Your task to perform on an android device: set the timer Image 0: 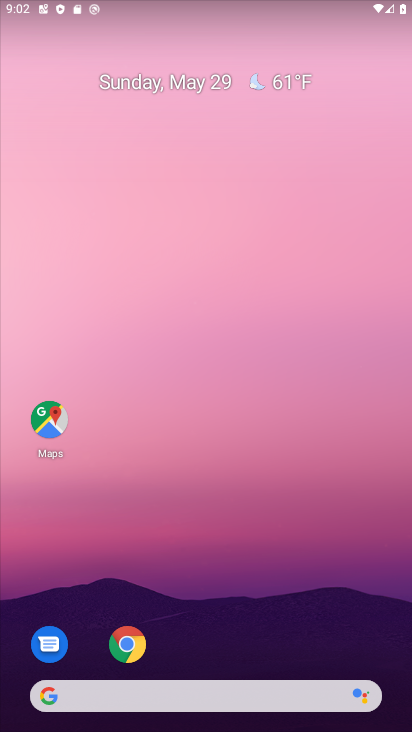
Step 0: drag from (236, 685) to (344, 108)
Your task to perform on an android device: set the timer Image 1: 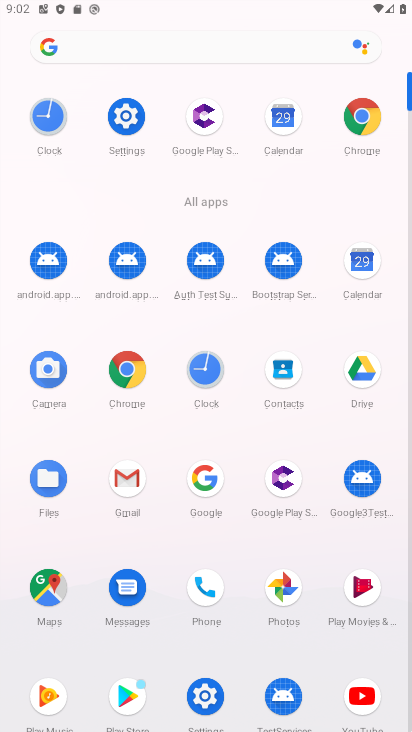
Step 1: click (208, 380)
Your task to perform on an android device: set the timer Image 2: 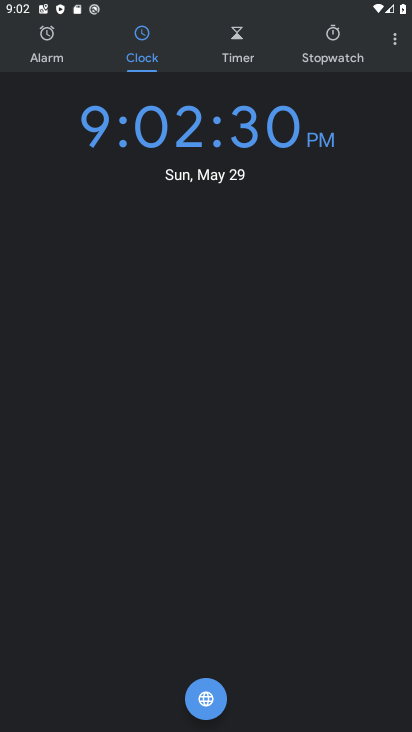
Step 2: click (234, 39)
Your task to perform on an android device: set the timer Image 3: 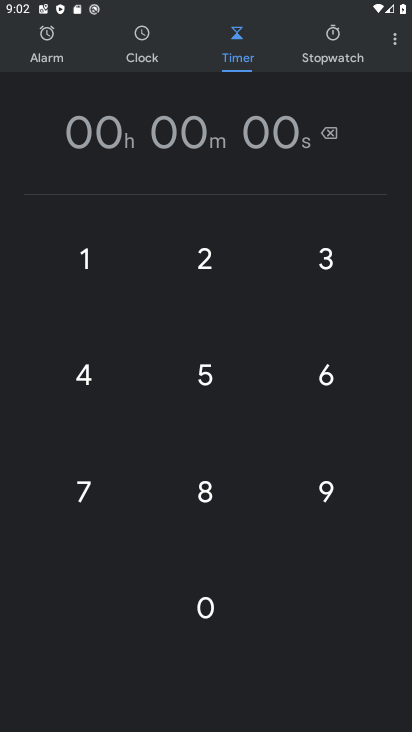
Step 3: click (191, 508)
Your task to perform on an android device: set the timer Image 4: 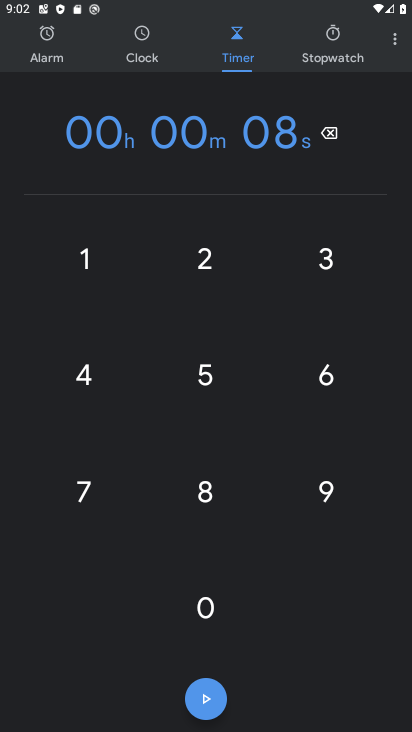
Step 4: click (312, 387)
Your task to perform on an android device: set the timer Image 5: 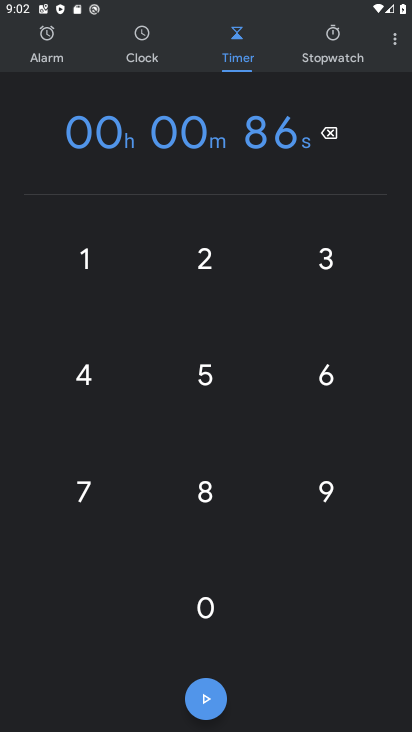
Step 5: click (156, 255)
Your task to perform on an android device: set the timer Image 6: 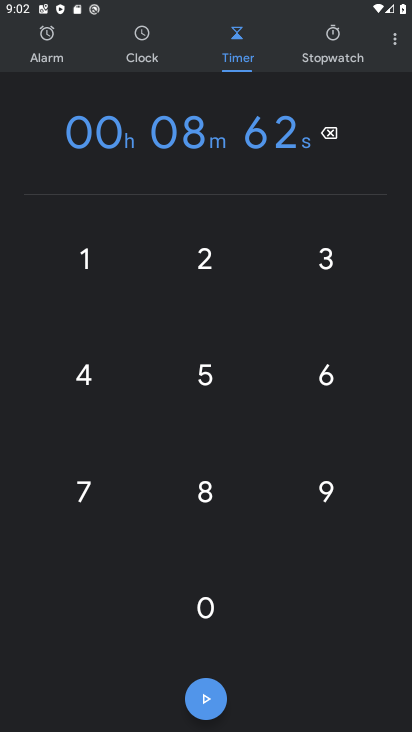
Step 6: click (59, 359)
Your task to perform on an android device: set the timer Image 7: 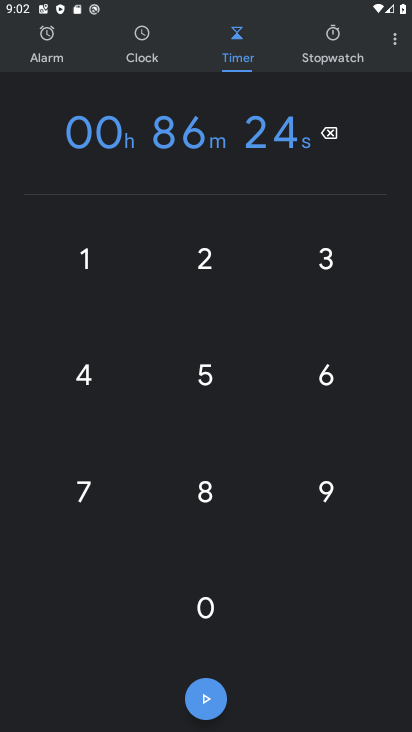
Step 7: click (213, 706)
Your task to perform on an android device: set the timer Image 8: 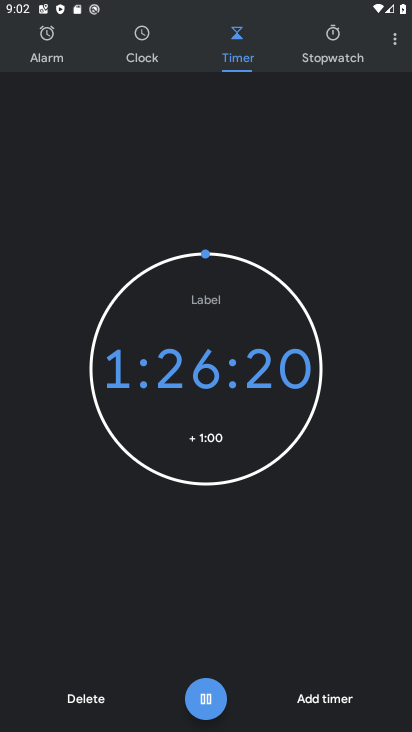
Step 8: task complete